Your task to perform on an android device: install app "Upside-Cash back on gas & food" Image 0: 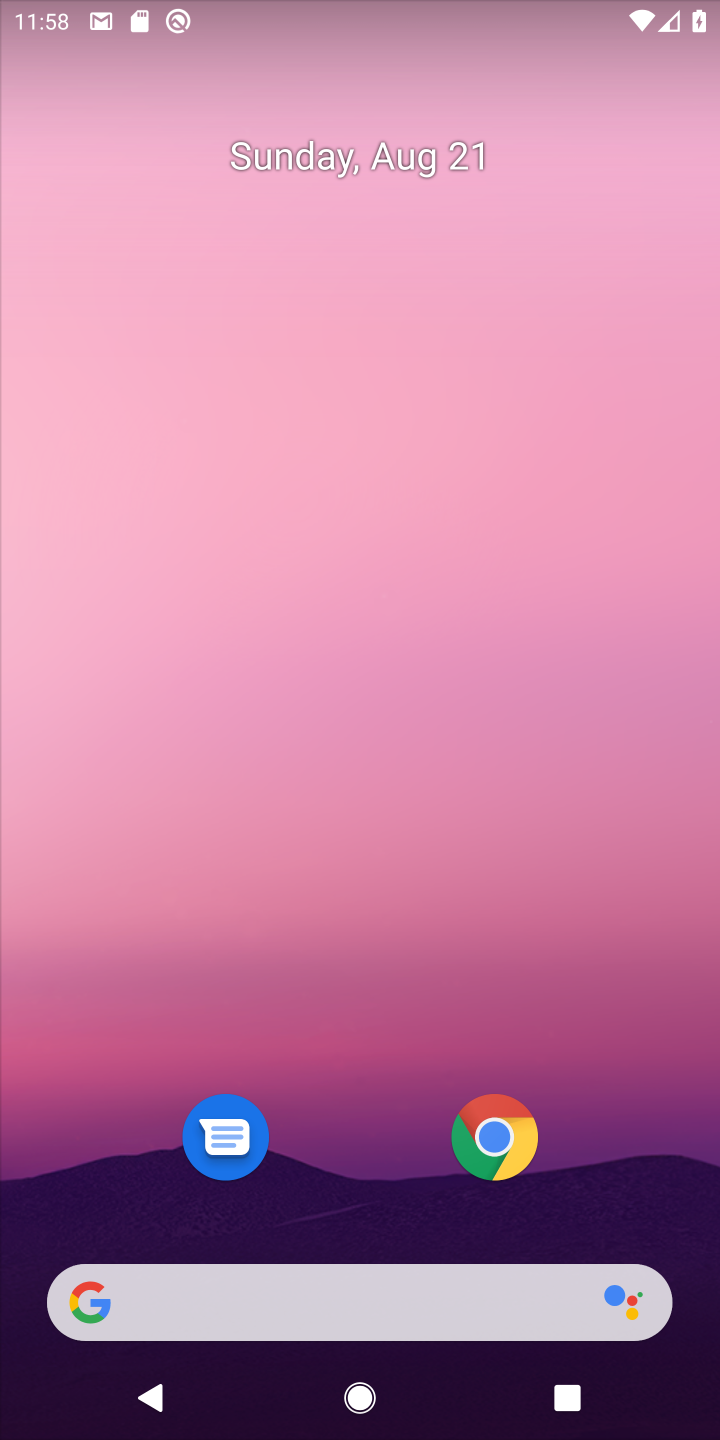
Step 0: drag from (684, 1202) to (599, 57)
Your task to perform on an android device: install app "Upside-Cash back on gas & food" Image 1: 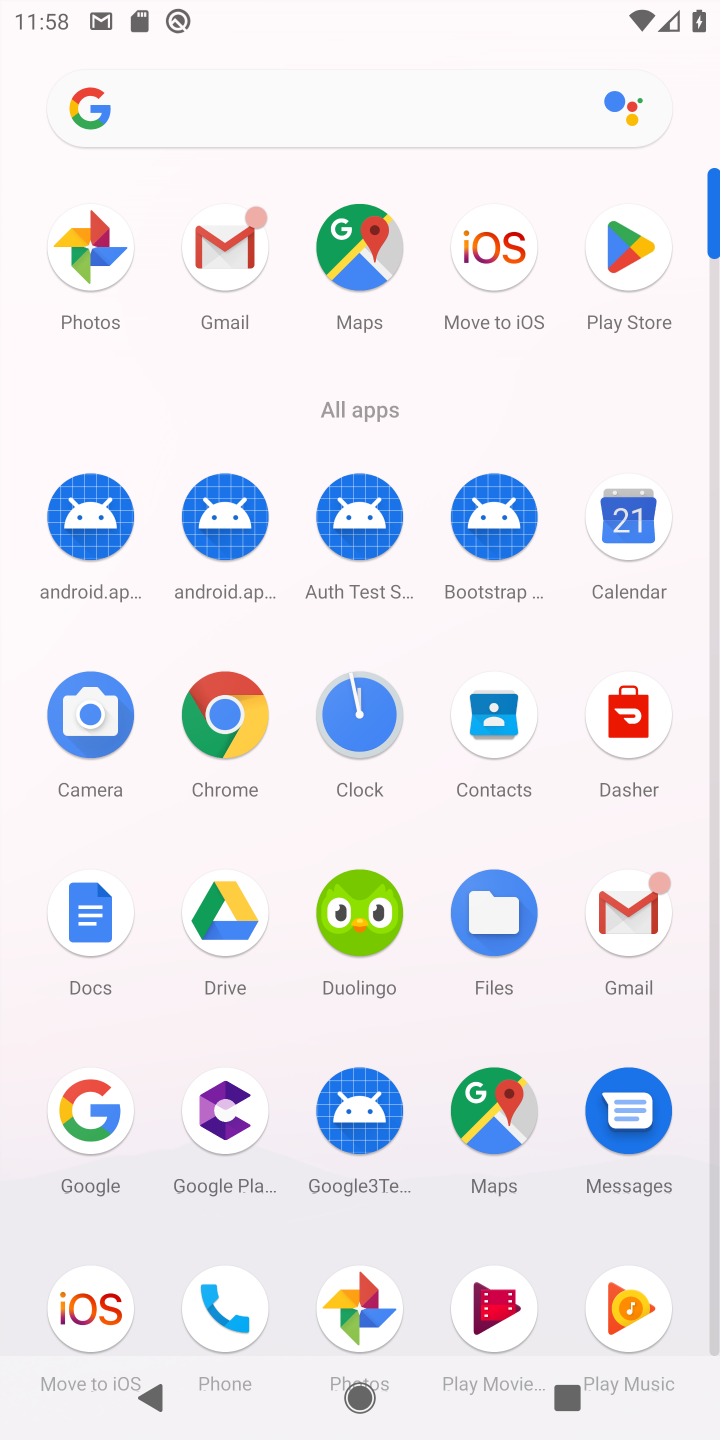
Step 1: click (713, 1303)
Your task to perform on an android device: install app "Upside-Cash back on gas & food" Image 2: 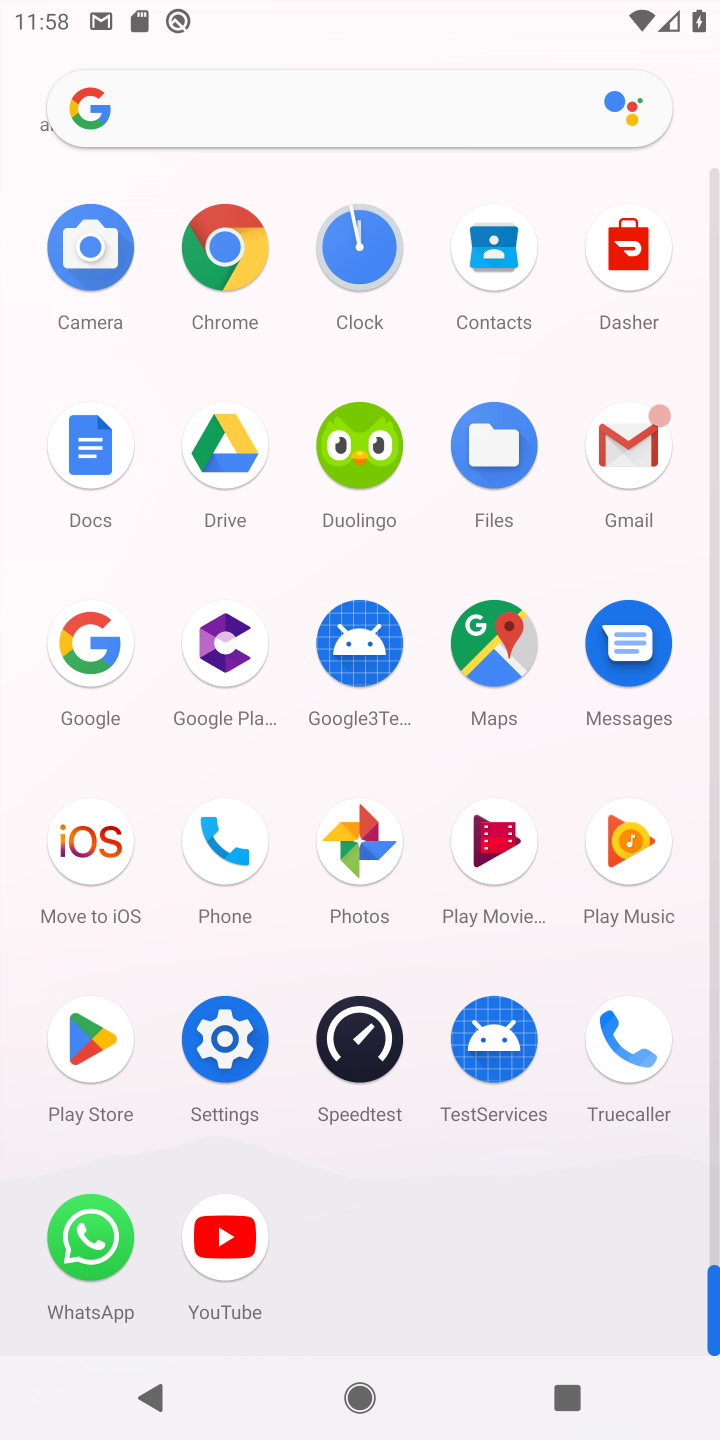
Step 2: click (89, 1042)
Your task to perform on an android device: install app "Upside-Cash back on gas & food" Image 3: 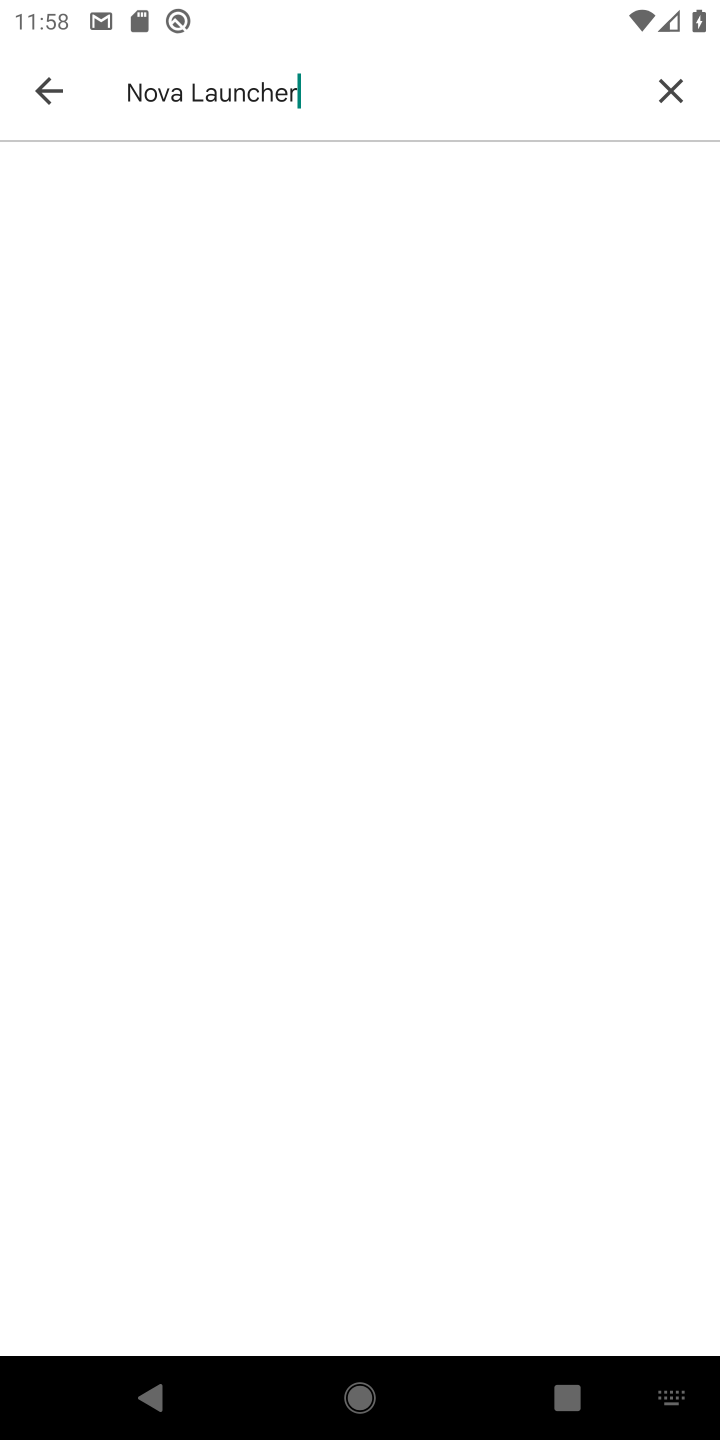
Step 3: click (664, 86)
Your task to perform on an android device: install app "Upside-Cash back on gas & food" Image 4: 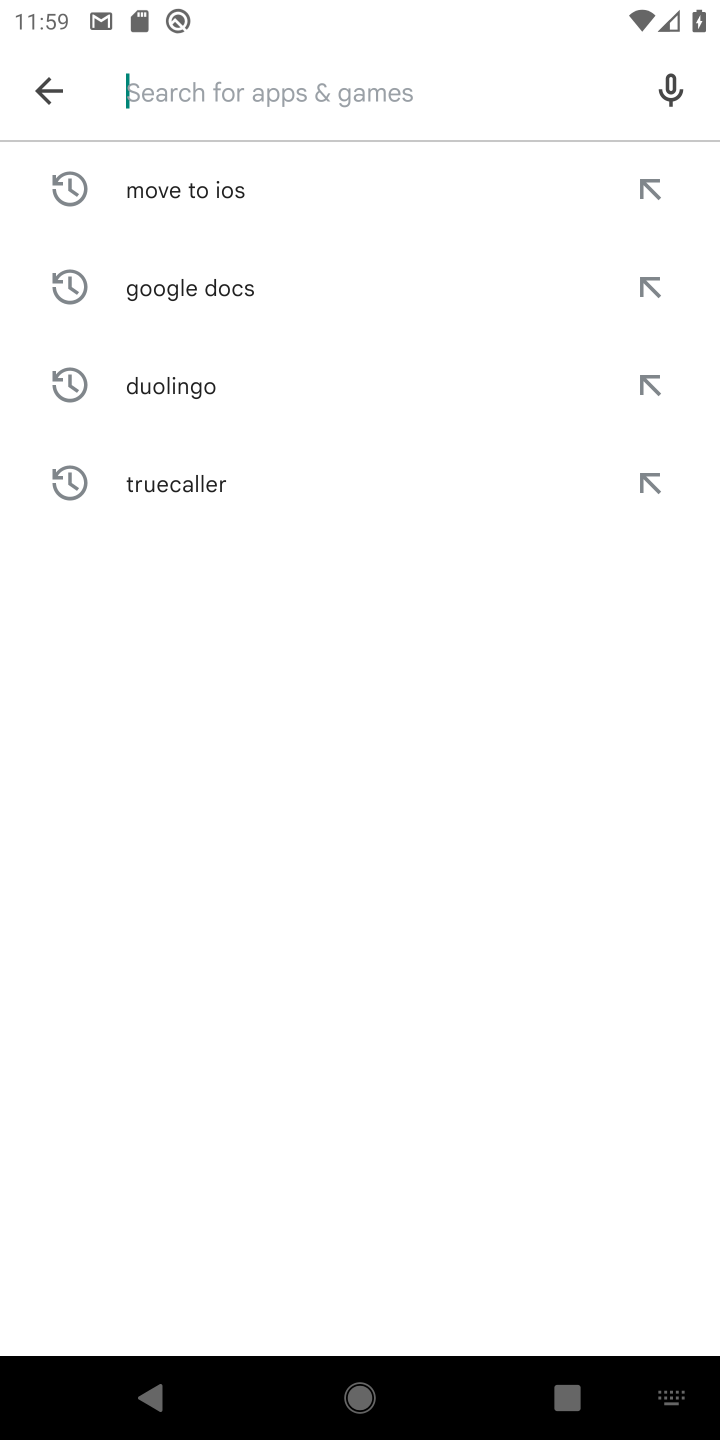
Step 4: type "Upside-Cash back on gas & food"
Your task to perform on an android device: install app "Upside-Cash back on gas & food" Image 5: 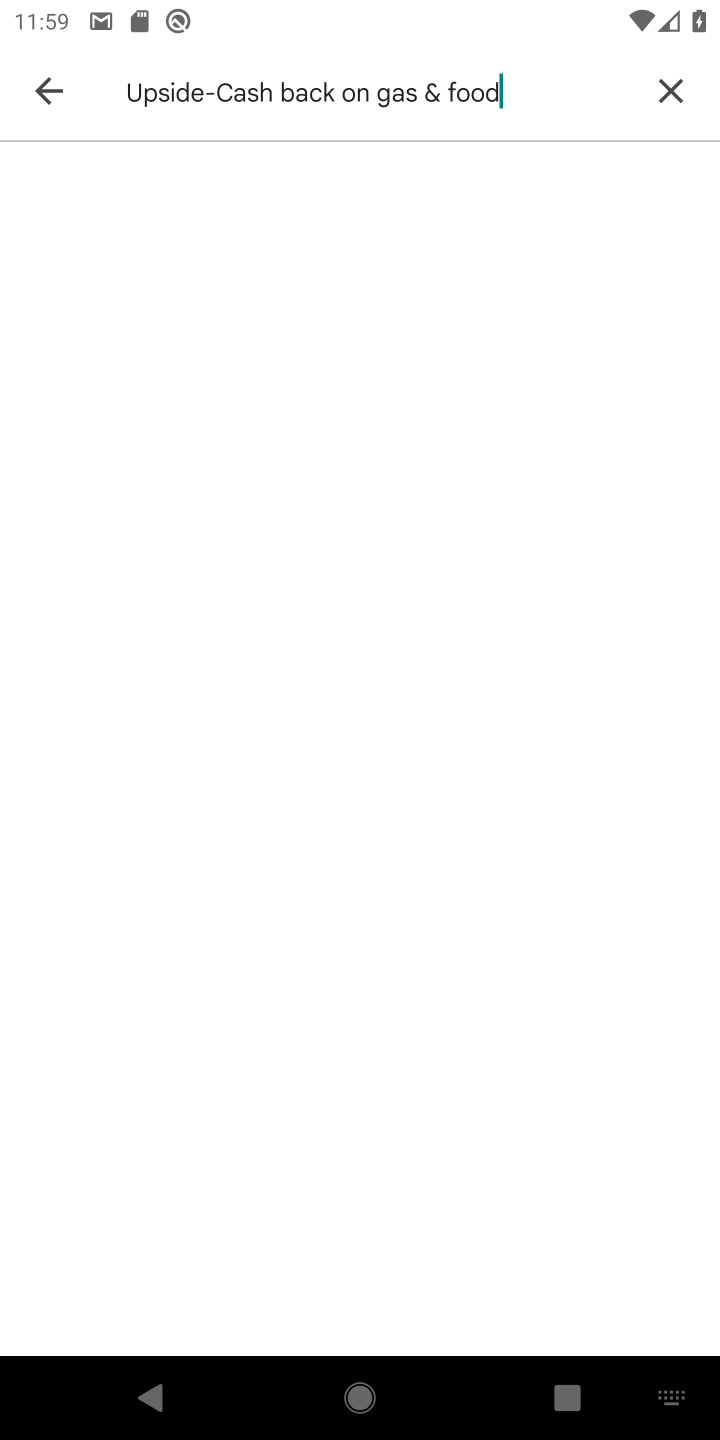
Step 5: task complete